Your task to perform on an android device: Open calendar and show me the fourth week of next month Image 0: 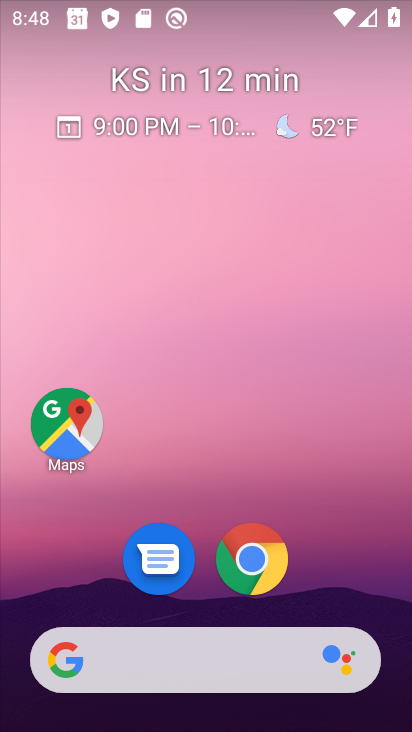
Step 0: drag from (313, 278) to (267, 1)
Your task to perform on an android device: Open calendar and show me the fourth week of next month Image 1: 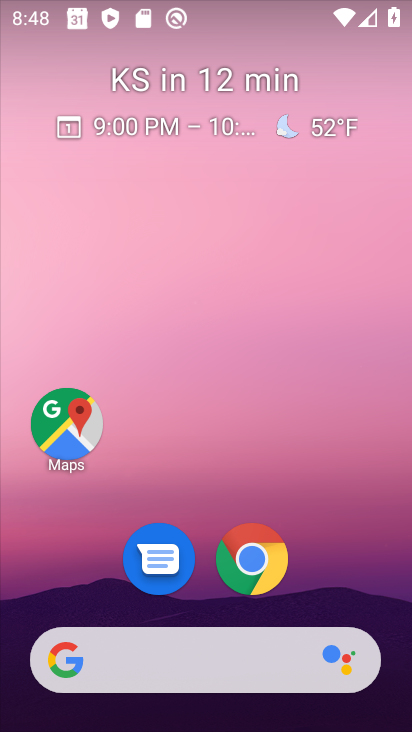
Step 1: drag from (340, 570) to (280, 80)
Your task to perform on an android device: Open calendar and show me the fourth week of next month Image 2: 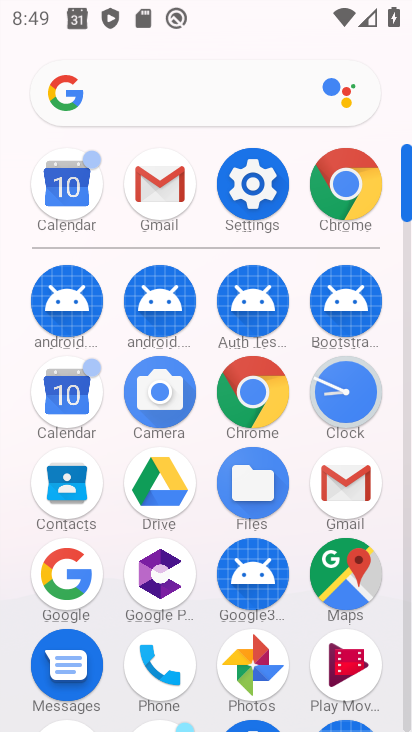
Step 2: click (65, 384)
Your task to perform on an android device: Open calendar and show me the fourth week of next month Image 3: 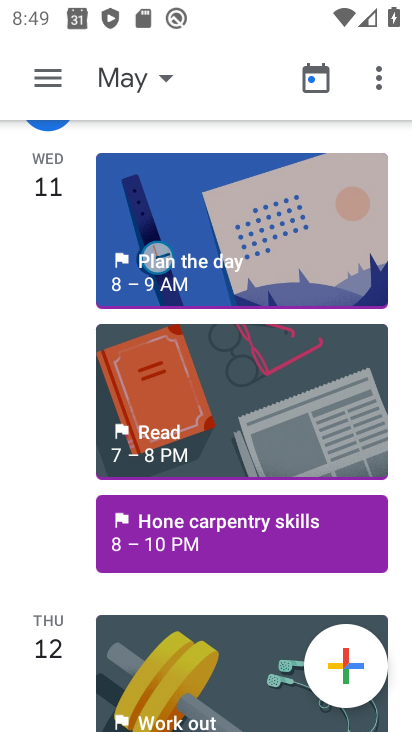
Step 3: click (154, 87)
Your task to perform on an android device: Open calendar and show me the fourth week of next month Image 4: 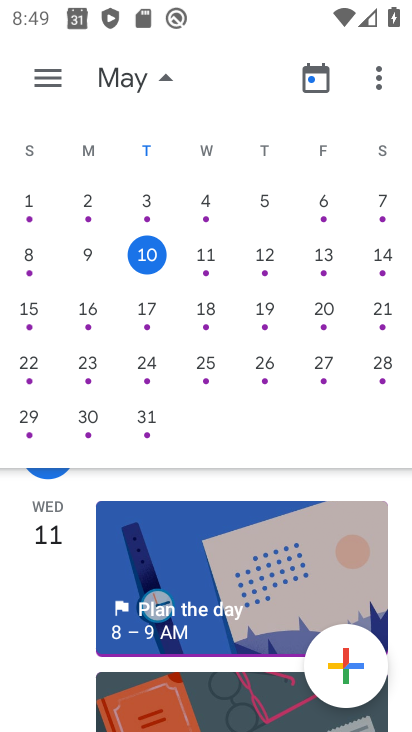
Step 4: drag from (379, 219) to (8, 158)
Your task to perform on an android device: Open calendar and show me the fourth week of next month Image 5: 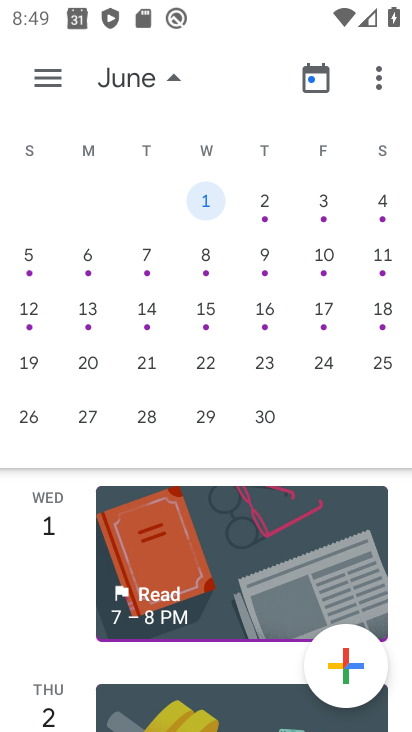
Step 5: click (25, 359)
Your task to perform on an android device: Open calendar and show me the fourth week of next month Image 6: 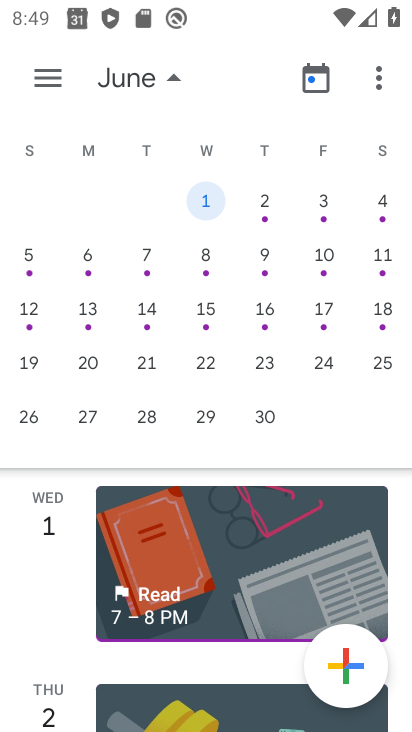
Step 6: click (27, 359)
Your task to perform on an android device: Open calendar and show me the fourth week of next month Image 7: 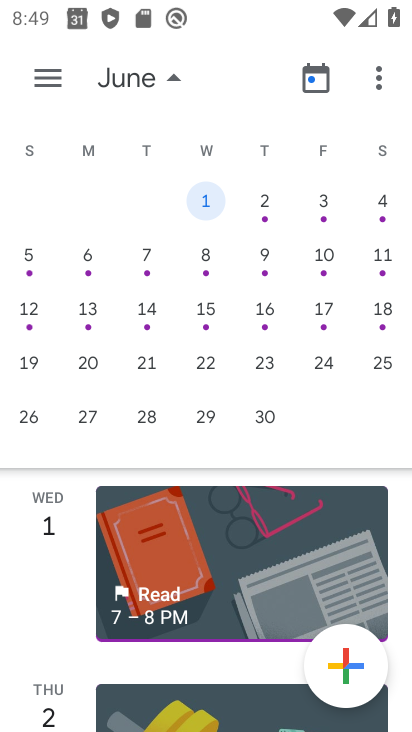
Step 7: click (35, 359)
Your task to perform on an android device: Open calendar and show me the fourth week of next month Image 8: 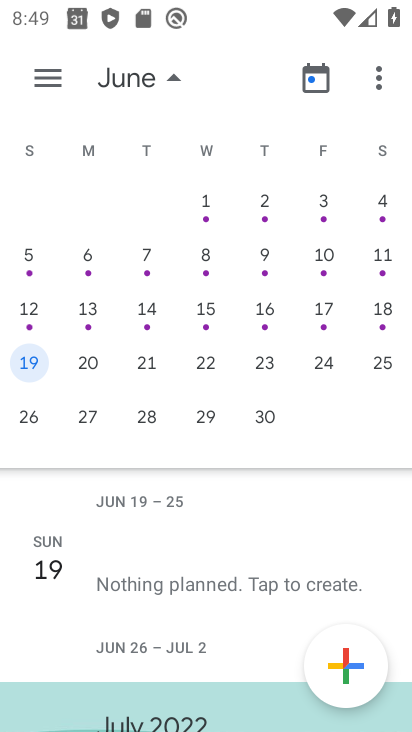
Step 8: task complete